Your task to perform on an android device: toggle airplane mode Image 0: 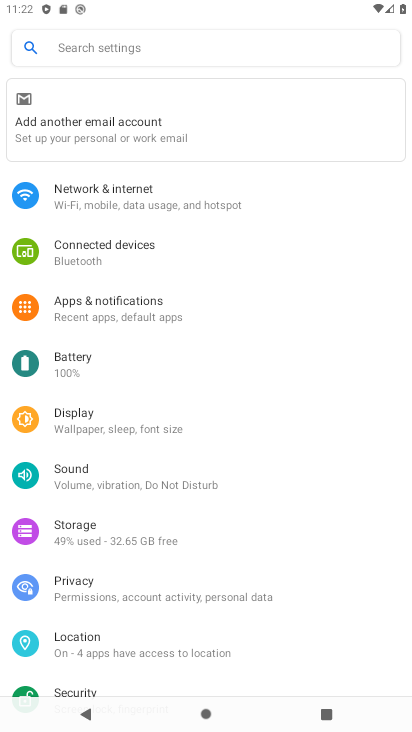
Step 0: click (216, 215)
Your task to perform on an android device: toggle airplane mode Image 1: 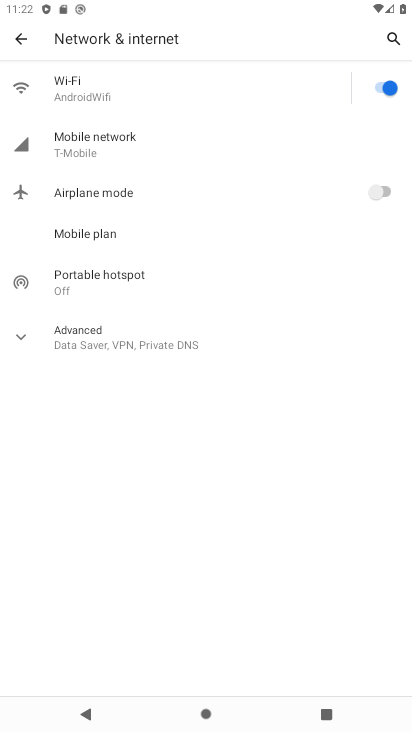
Step 1: click (351, 185)
Your task to perform on an android device: toggle airplane mode Image 2: 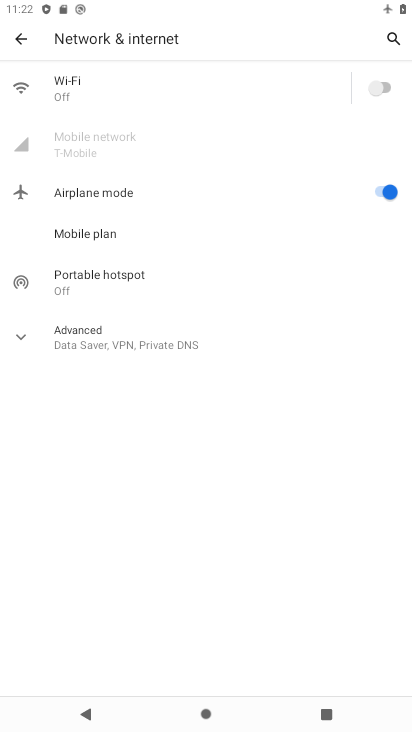
Step 2: task complete